Your task to perform on an android device: open app "Google Play services" Image 0: 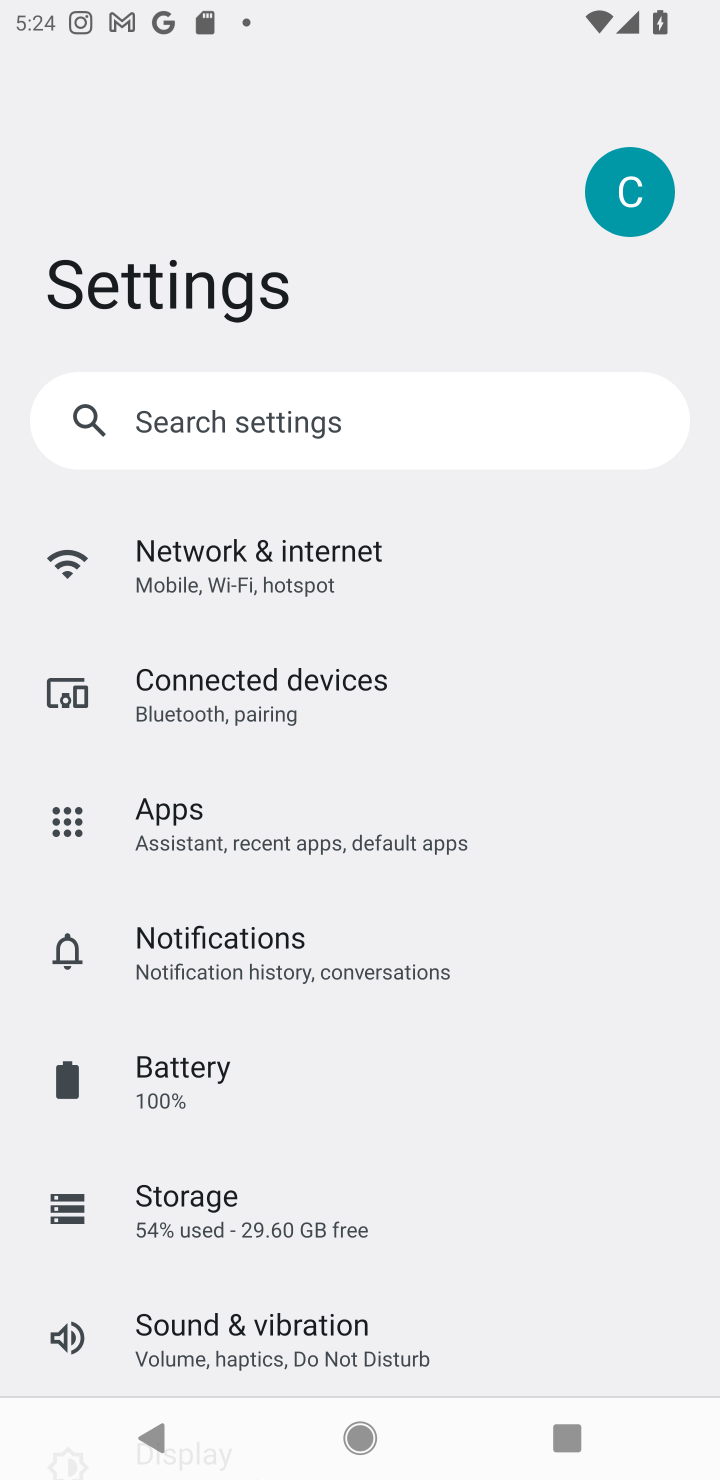
Step 0: press home button
Your task to perform on an android device: open app "Google Play services" Image 1: 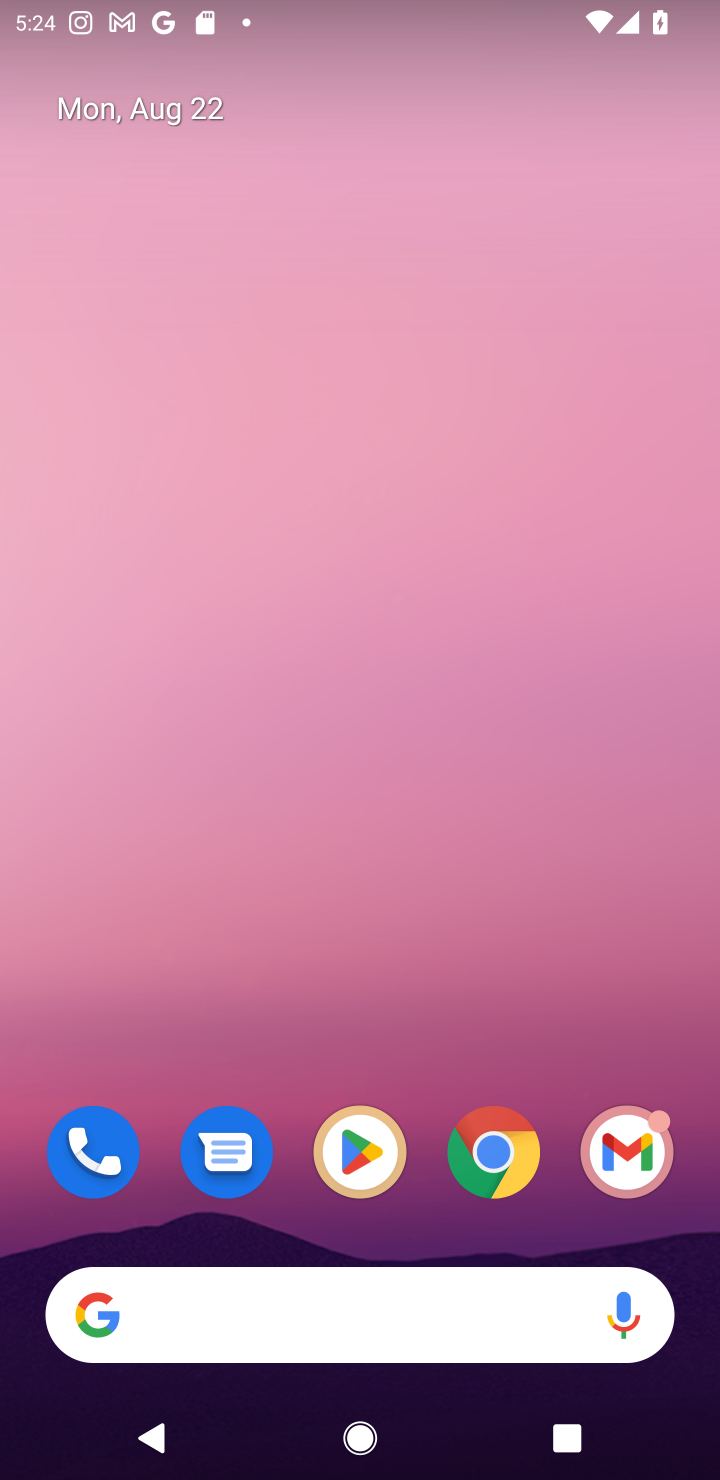
Step 1: click (351, 1143)
Your task to perform on an android device: open app "Google Play services" Image 2: 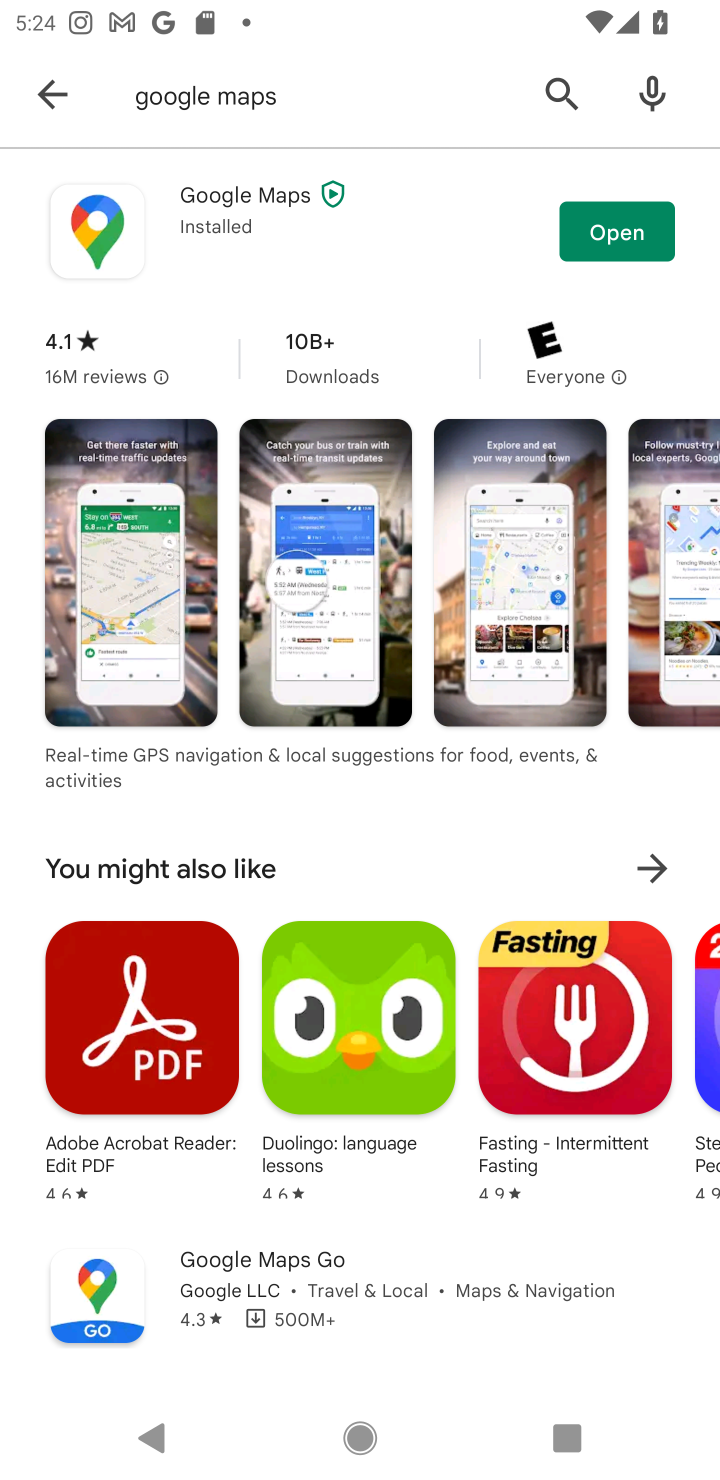
Step 2: click (45, 88)
Your task to perform on an android device: open app "Google Play services" Image 3: 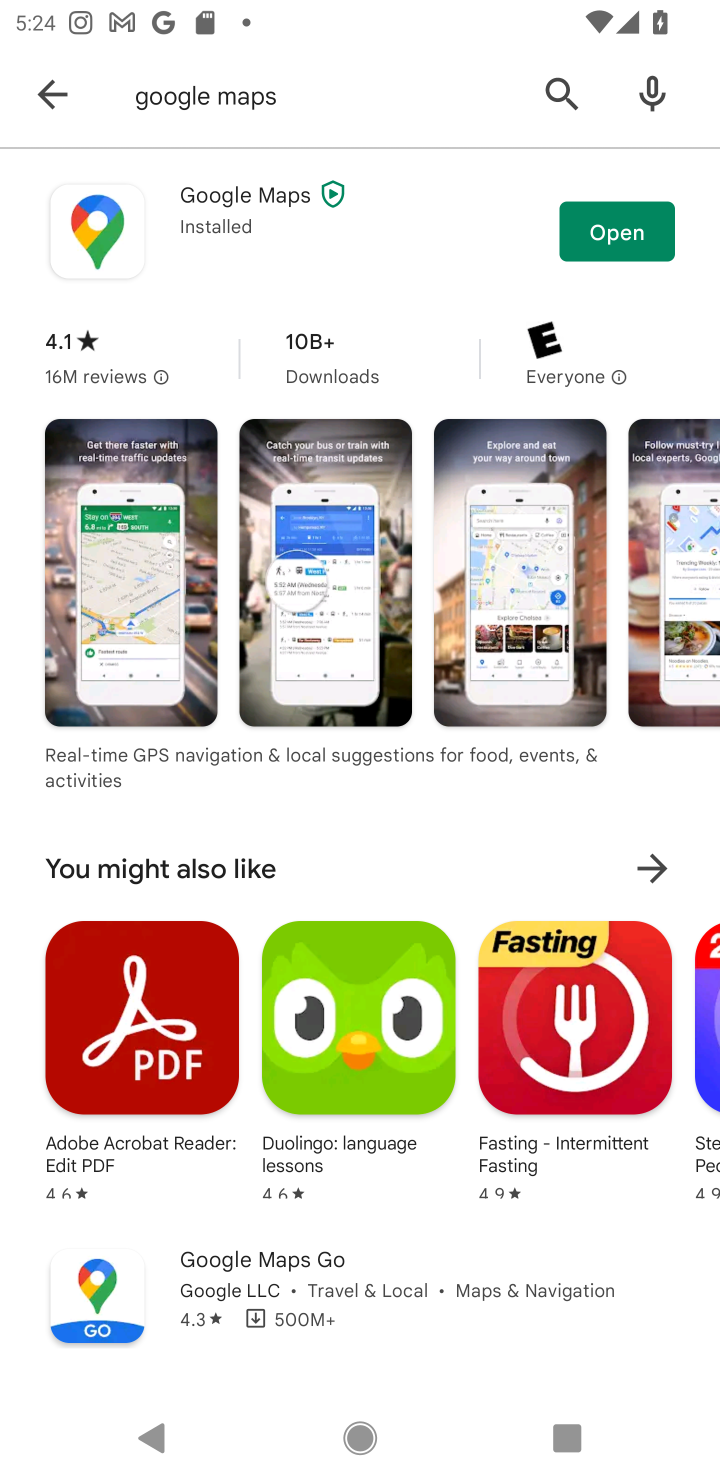
Step 3: click (33, 111)
Your task to perform on an android device: open app "Google Play services" Image 4: 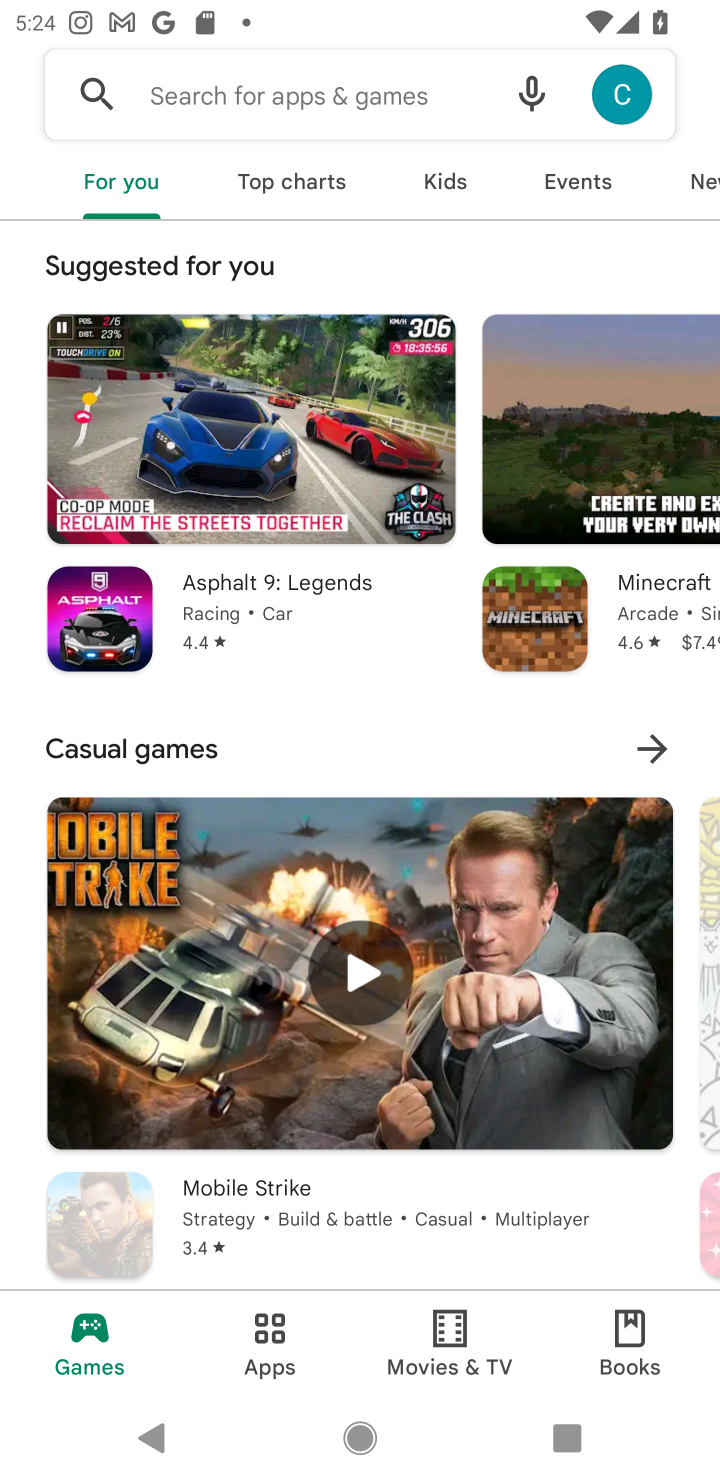
Step 4: click (163, 123)
Your task to perform on an android device: open app "Google Play services" Image 5: 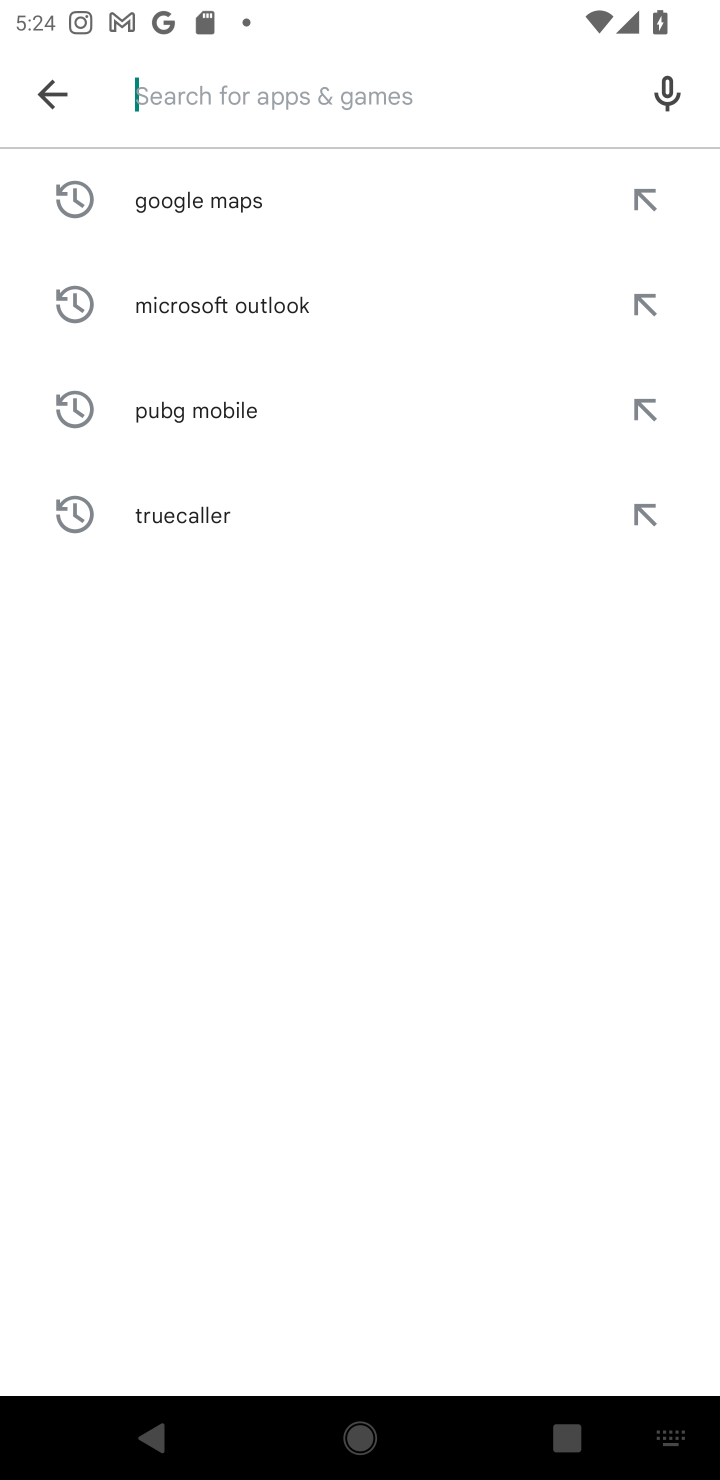
Step 5: type "Google Play services"
Your task to perform on an android device: open app "Google Play services" Image 6: 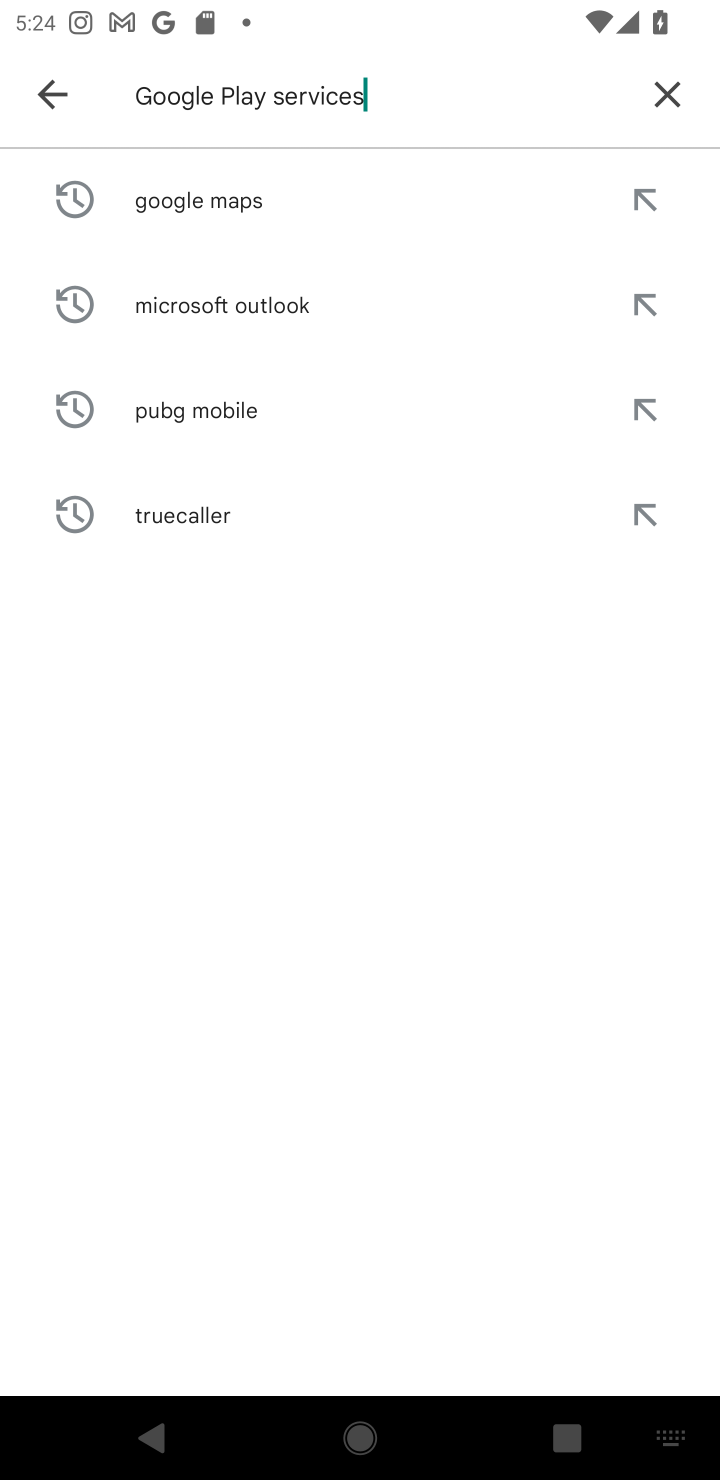
Step 6: type ""
Your task to perform on an android device: open app "Google Play services" Image 7: 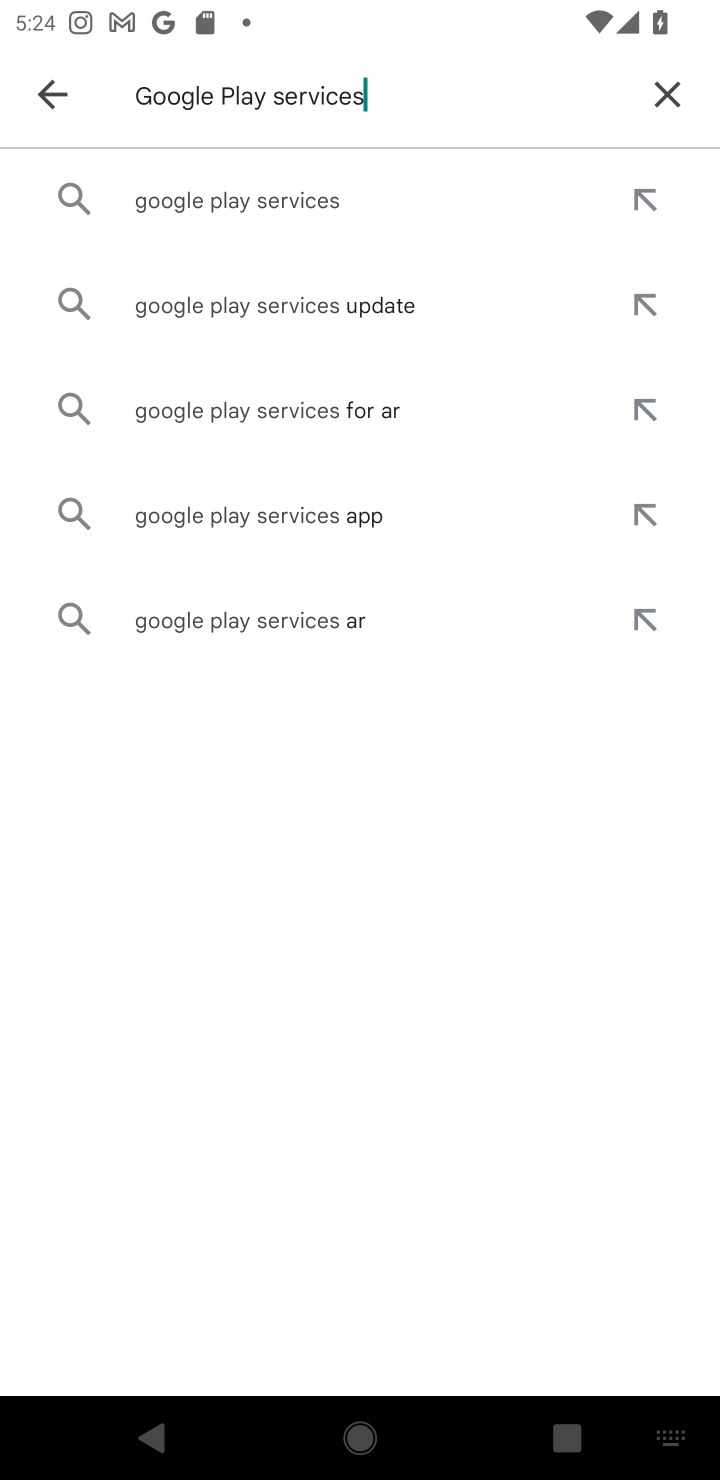
Step 7: click (199, 193)
Your task to perform on an android device: open app "Google Play services" Image 8: 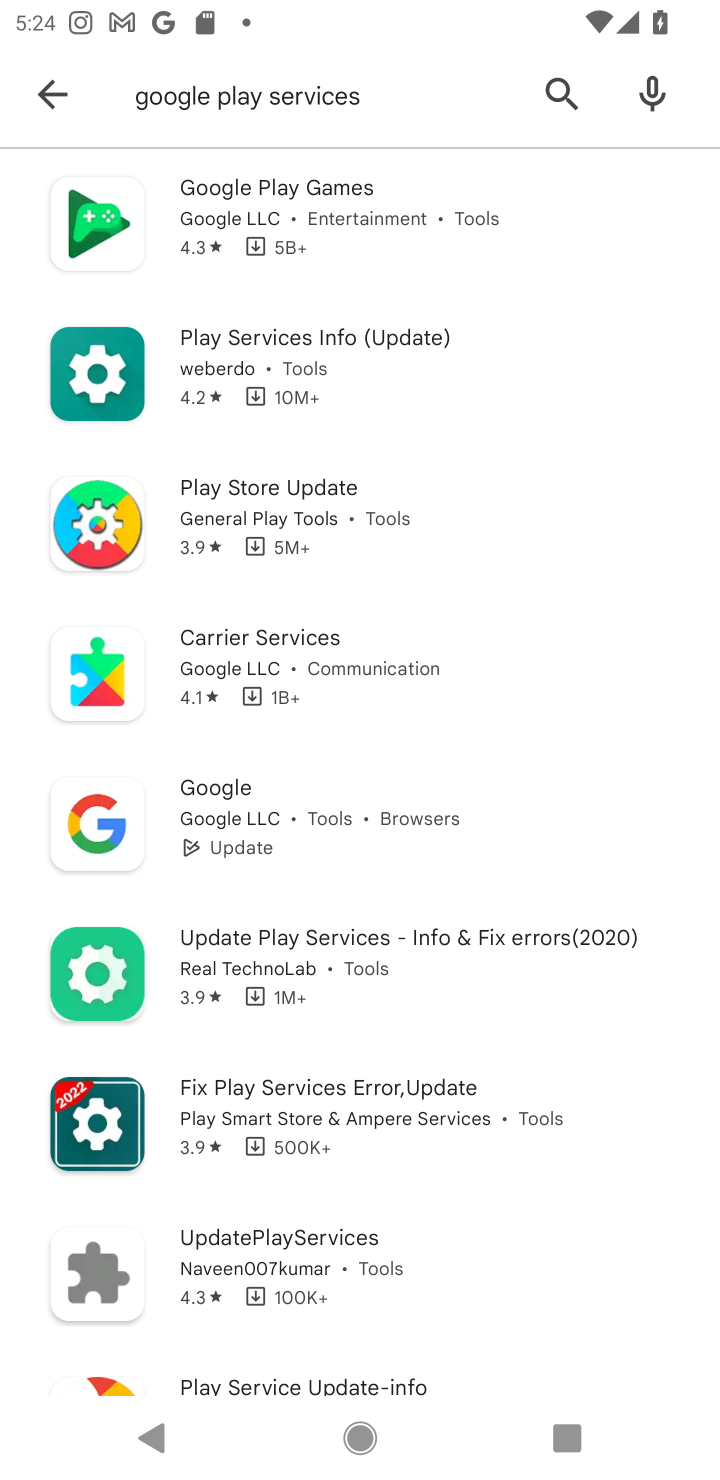
Step 8: task complete